Your task to perform on an android device: Turn off the flashlight Image 0: 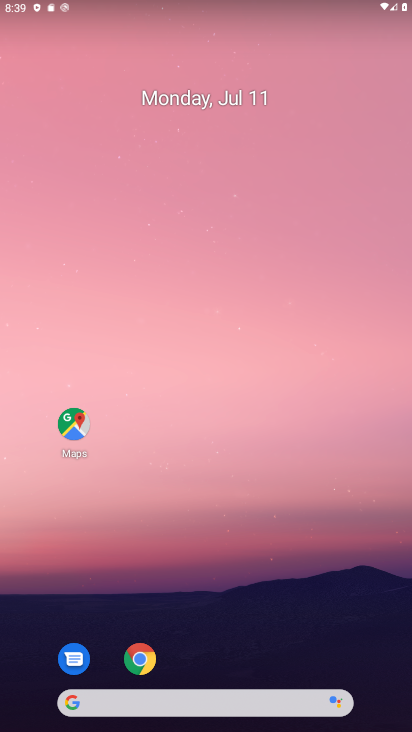
Step 0: drag from (243, 695) to (216, 227)
Your task to perform on an android device: Turn off the flashlight Image 1: 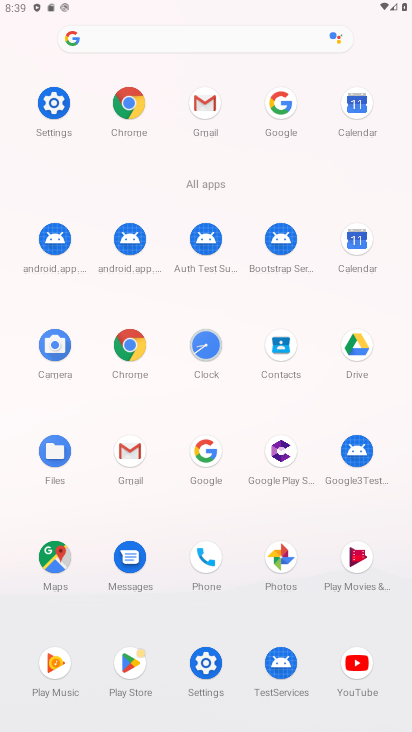
Step 1: click (48, 100)
Your task to perform on an android device: Turn off the flashlight Image 2: 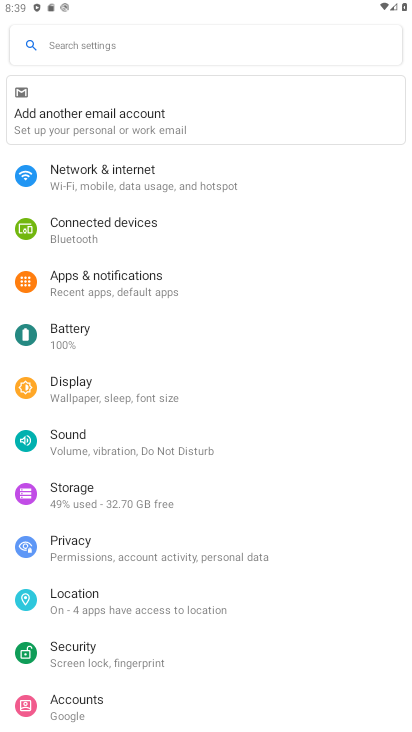
Step 2: task complete